Your task to perform on an android device: change alarm snooze length Image 0: 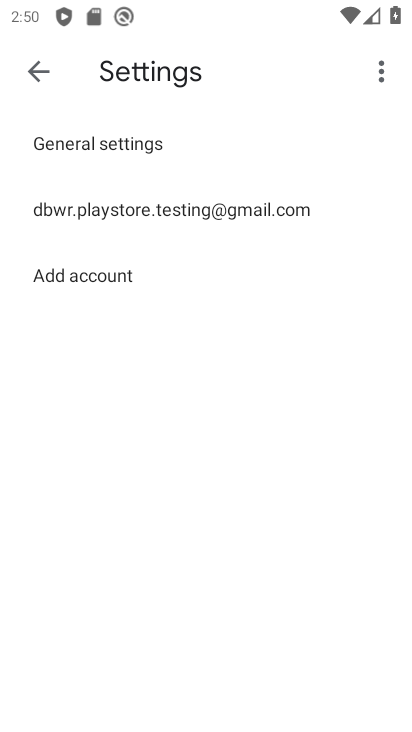
Step 0: press home button
Your task to perform on an android device: change alarm snooze length Image 1: 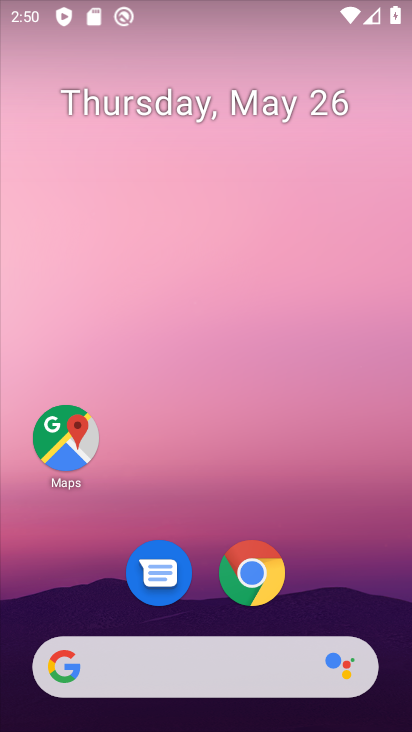
Step 1: drag from (219, 664) to (239, 111)
Your task to perform on an android device: change alarm snooze length Image 2: 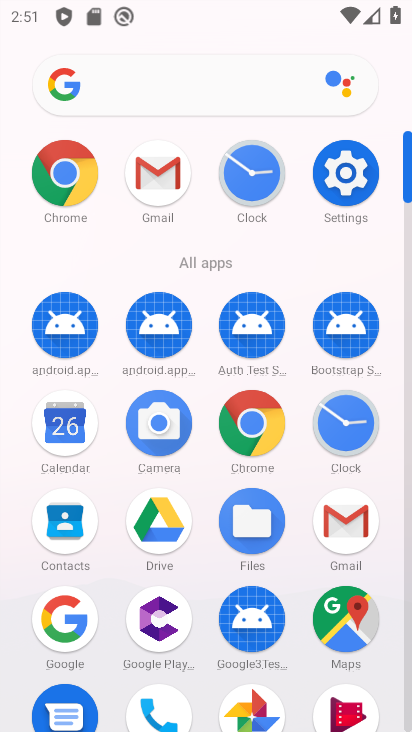
Step 2: click (269, 186)
Your task to perform on an android device: change alarm snooze length Image 3: 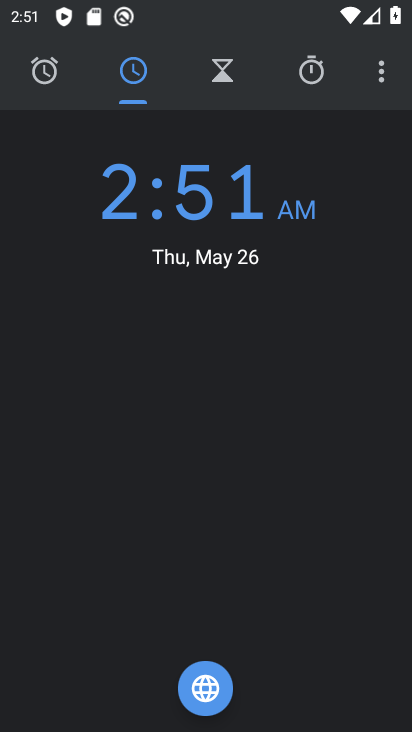
Step 3: click (384, 86)
Your task to perform on an android device: change alarm snooze length Image 4: 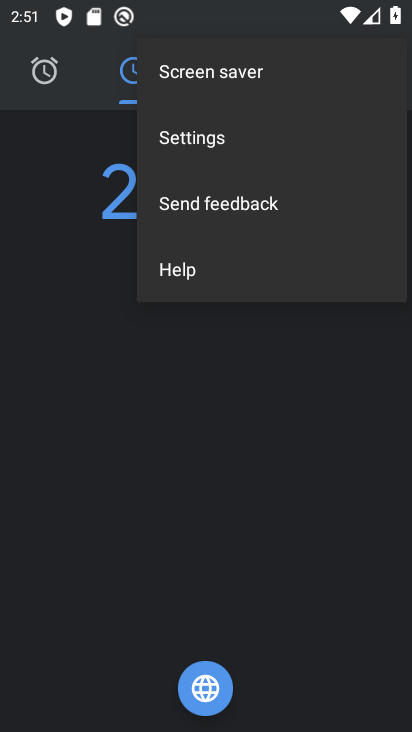
Step 4: click (211, 134)
Your task to perform on an android device: change alarm snooze length Image 5: 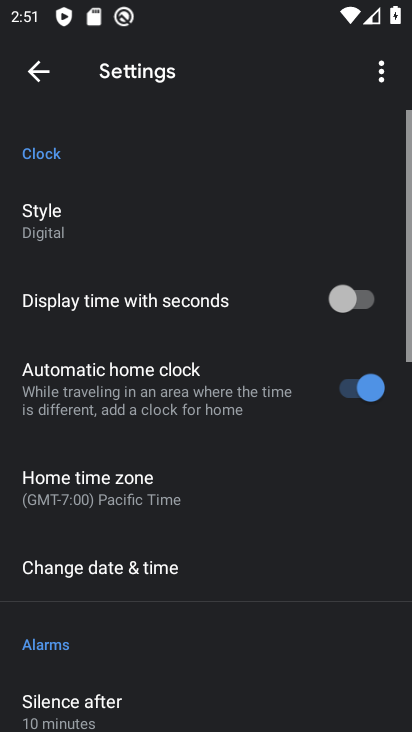
Step 5: drag from (183, 574) to (328, 7)
Your task to perform on an android device: change alarm snooze length Image 6: 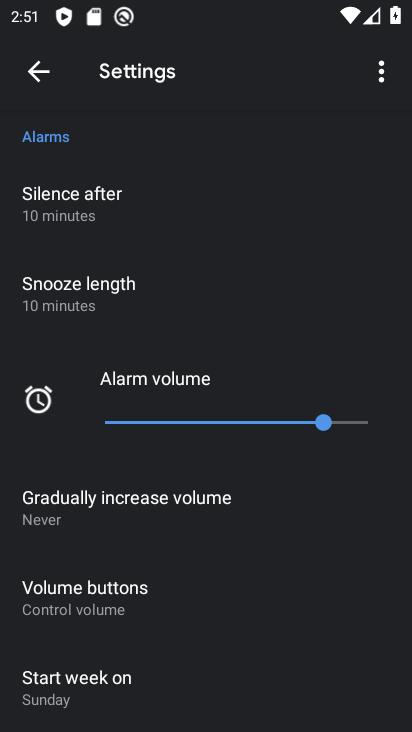
Step 6: click (147, 288)
Your task to perform on an android device: change alarm snooze length Image 7: 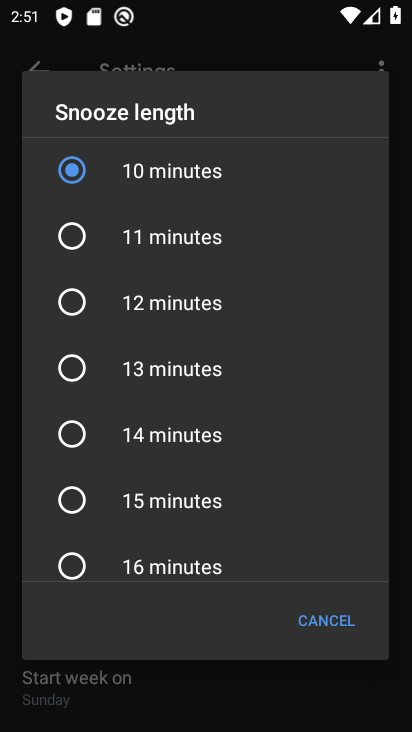
Step 7: click (134, 551)
Your task to perform on an android device: change alarm snooze length Image 8: 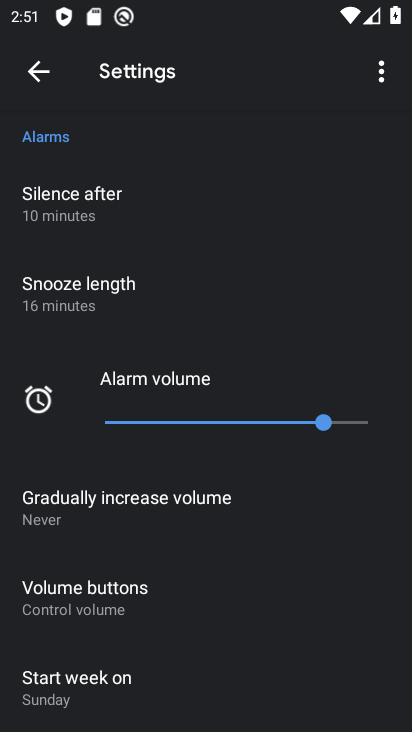
Step 8: task complete